Your task to perform on an android device: set the timer Image 0: 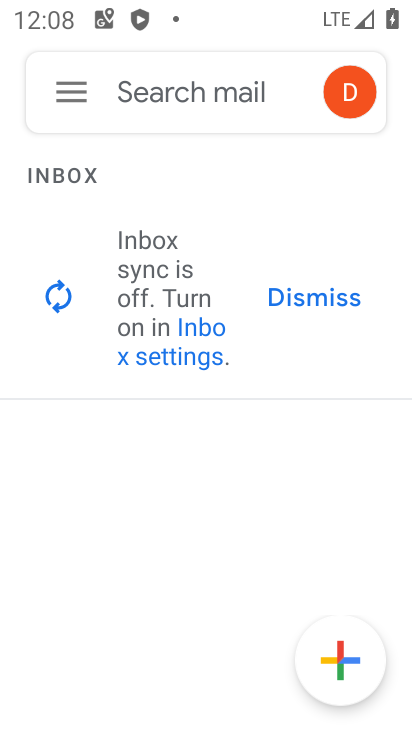
Step 0: press home button
Your task to perform on an android device: set the timer Image 1: 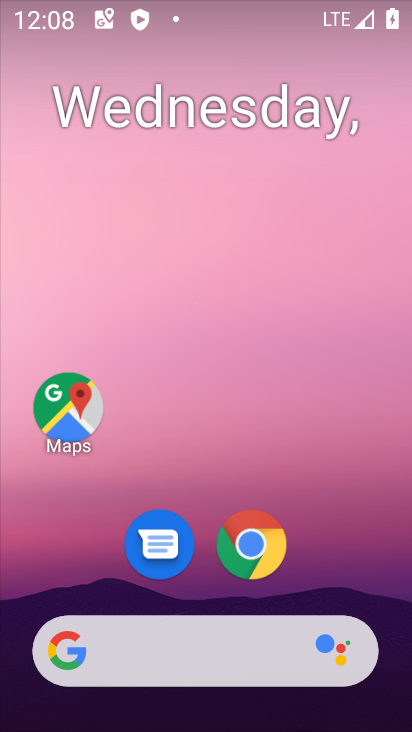
Step 1: drag from (401, 650) to (317, 64)
Your task to perform on an android device: set the timer Image 2: 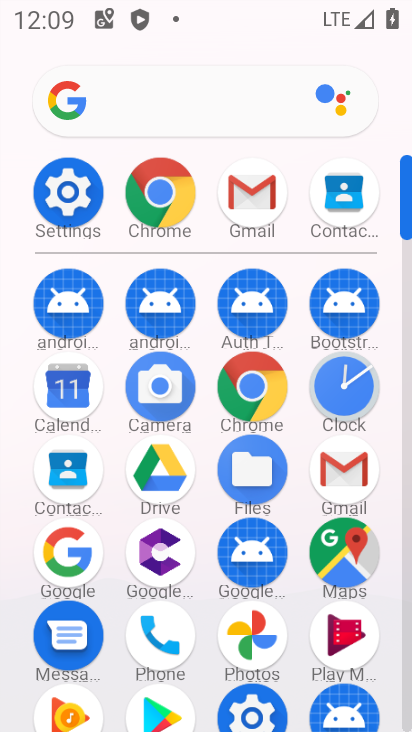
Step 2: click (342, 415)
Your task to perform on an android device: set the timer Image 3: 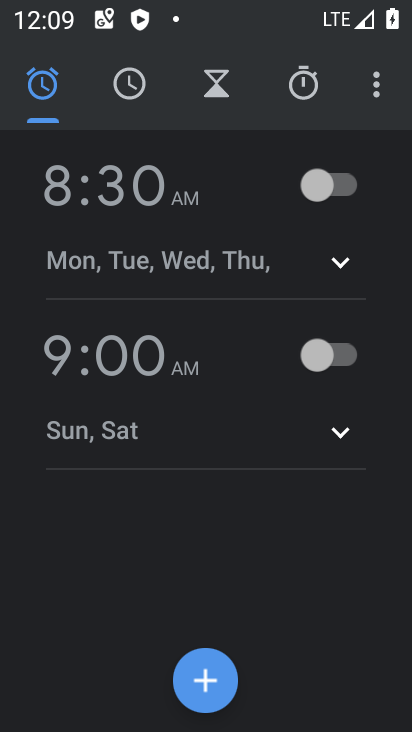
Step 3: click (381, 88)
Your task to perform on an android device: set the timer Image 4: 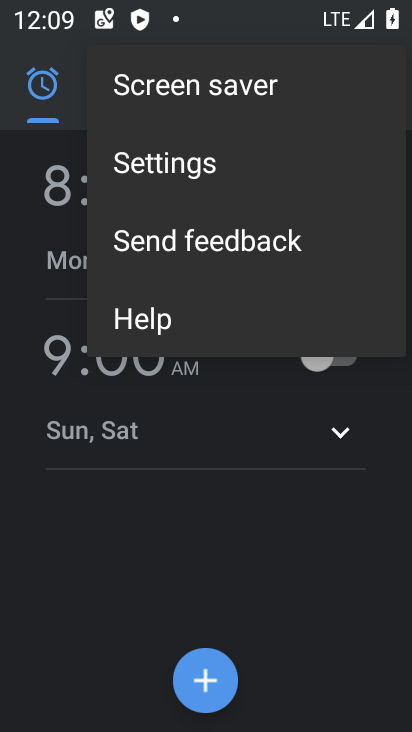
Step 4: click (261, 153)
Your task to perform on an android device: set the timer Image 5: 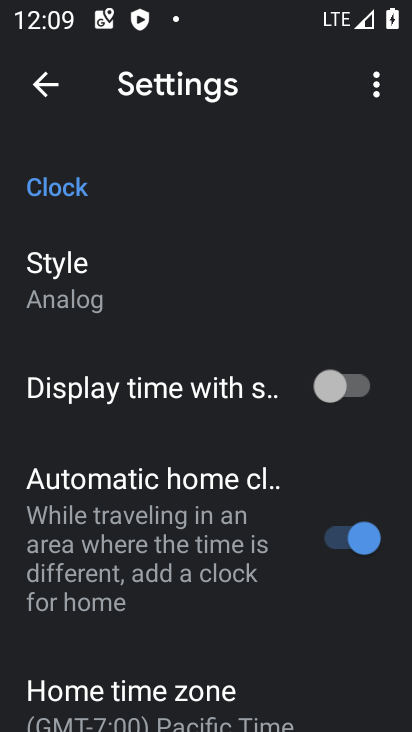
Step 5: drag from (88, 594) to (184, 217)
Your task to perform on an android device: set the timer Image 6: 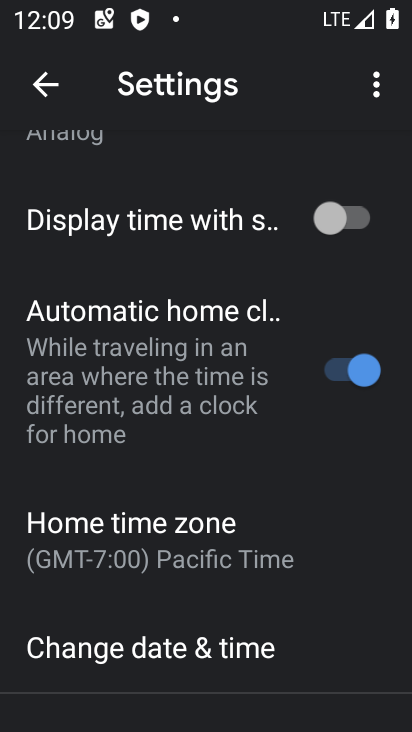
Step 6: click (181, 511)
Your task to perform on an android device: set the timer Image 7: 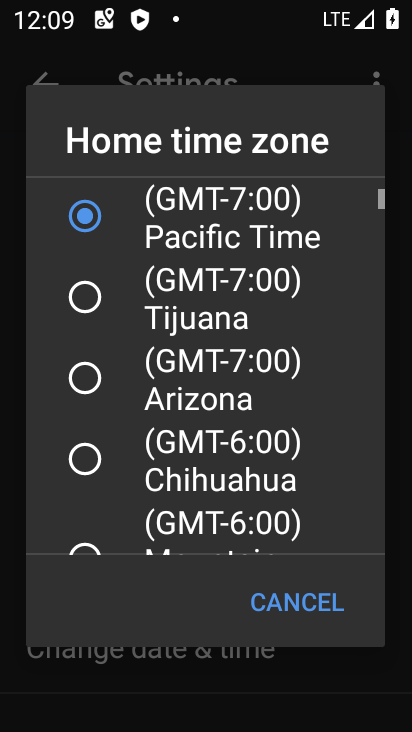
Step 7: click (174, 363)
Your task to perform on an android device: set the timer Image 8: 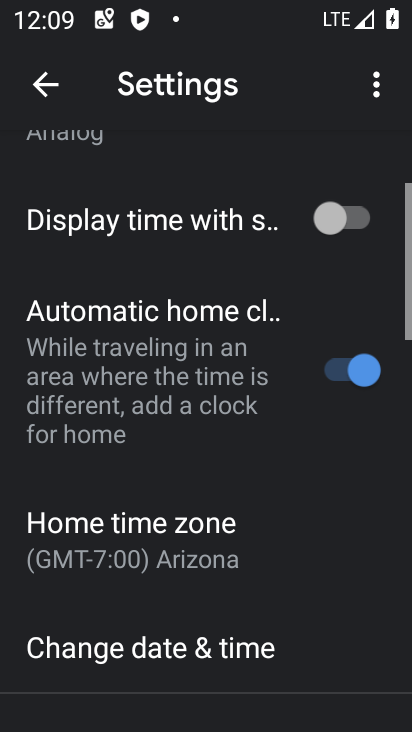
Step 8: task complete